Your task to perform on an android device: turn on location history Image 0: 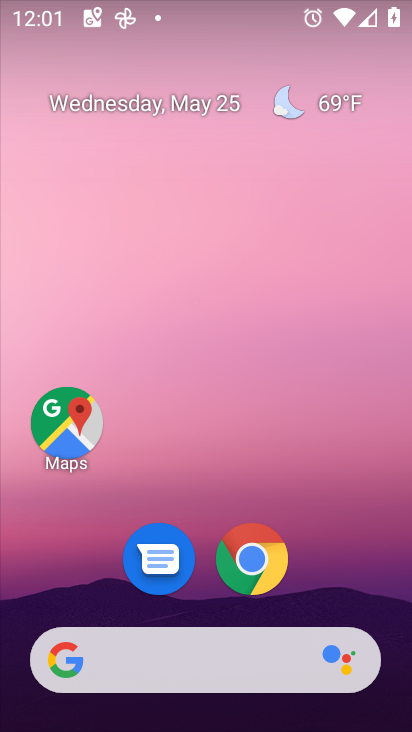
Step 0: drag from (393, 684) to (225, 88)
Your task to perform on an android device: turn on location history Image 1: 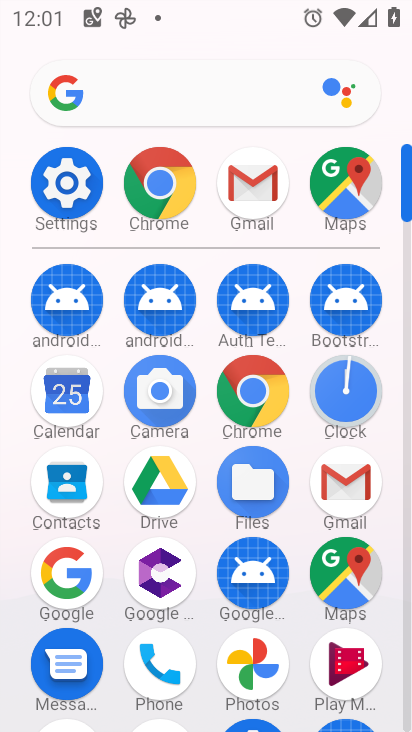
Step 1: click (84, 215)
Your task to perform on an android device: turn on location history Image 2: 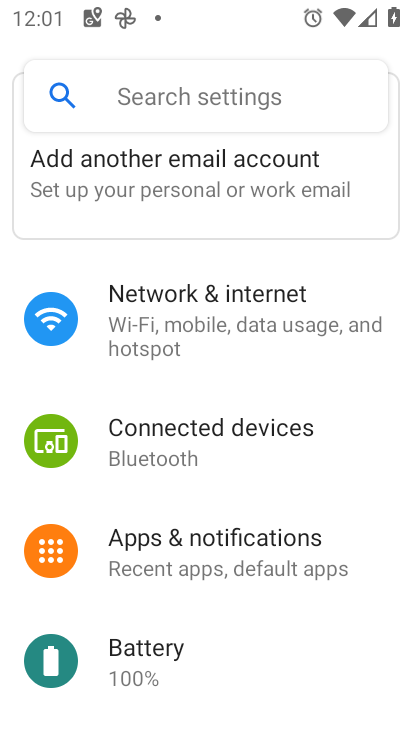
Step 2: drag from (216, 692) to (251, 186)
Your task to perform on an android device: turn on location history Image 3: 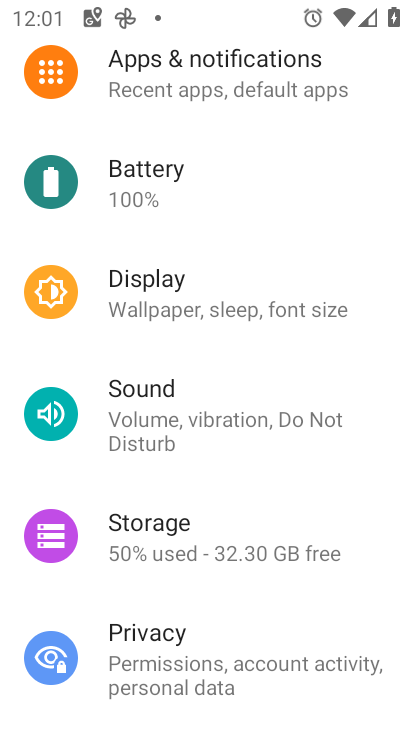
Step 3: drag from (181, 670) to (257, 187)
Your task to perform on an android device: turn on location history Image 4: 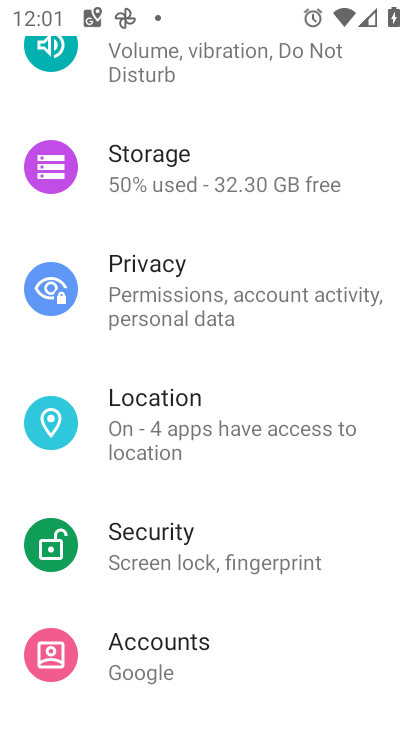
Step 4: click (196, 397)
Your task to perform on an android device: turn on location history Image 5: 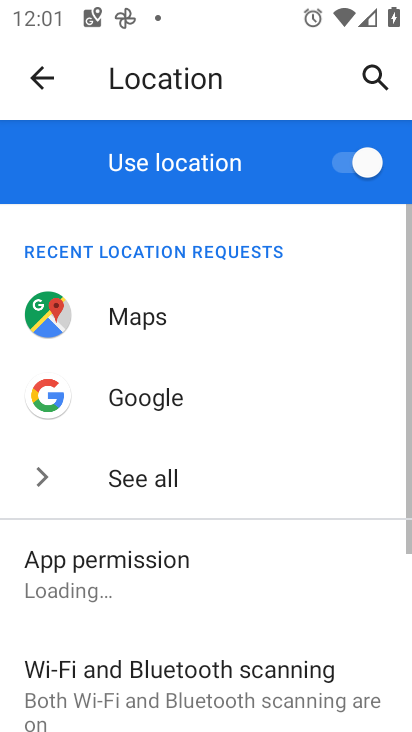
Step 5: drag from (203, 681) to (260, 197)
Your task to perform on an android device: turn on location history Image 6: 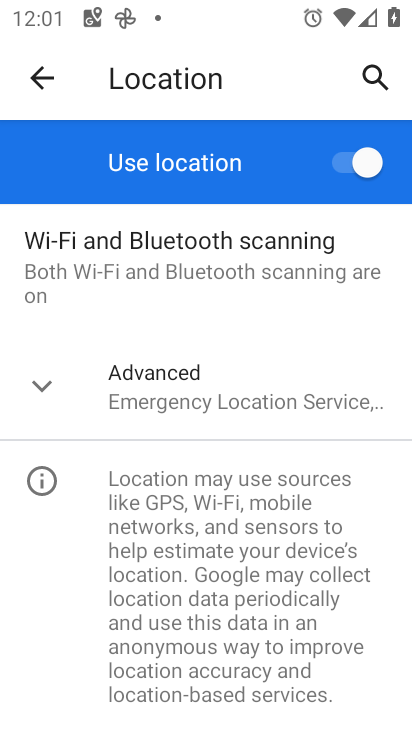
Step 6: click (139, 399)
Your task to perform on an android device: turn on location history Image 7: 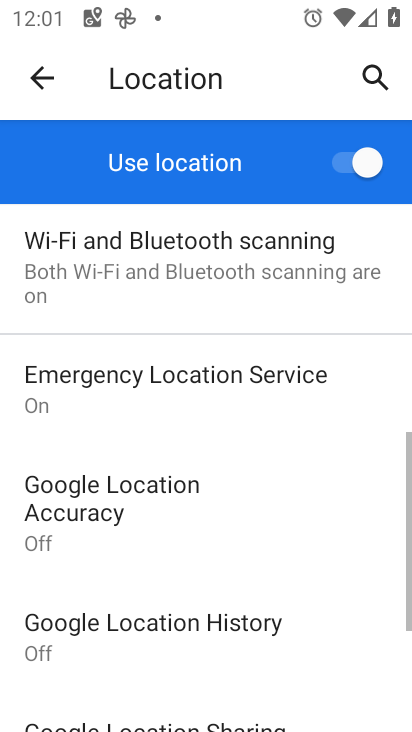
Step 7: click (225, 630)
Your task to perform on an android device: turn on location history Image 8: 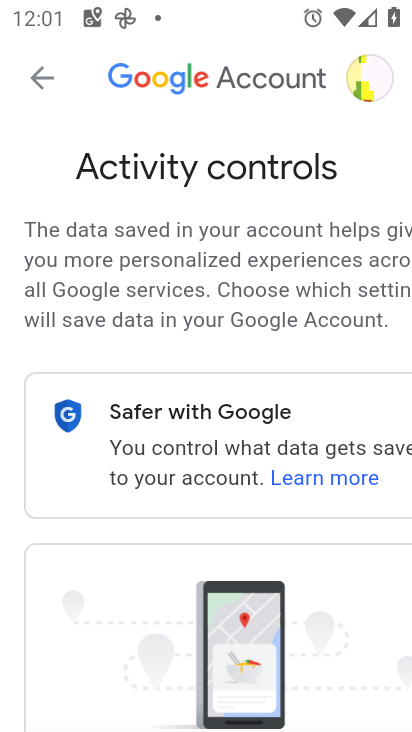
Step 8: drag from (326, 571) to (261, 129)
Your task to perform on an android device: turn on location history Image 9: 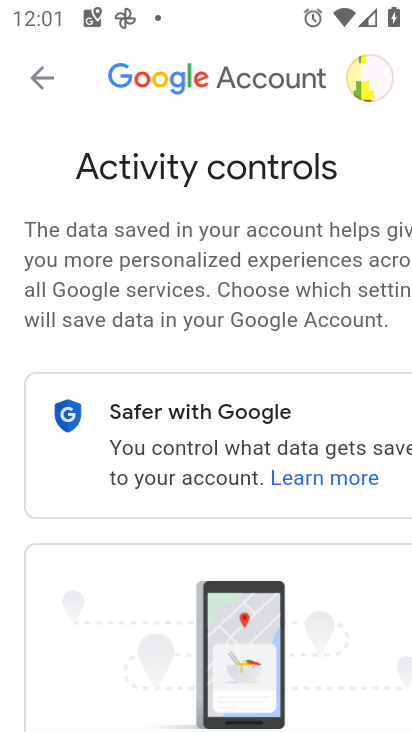
Step 9: drag from (346, 689) to (302, 174)
Your task to perform on an android device: turn on location history Image 10: 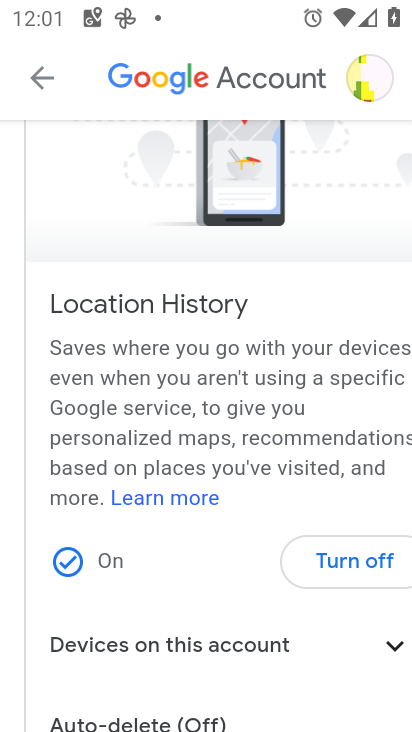
Step 10: click (354, 566)
Your task to perform on an android device: turn on location history Image 11: 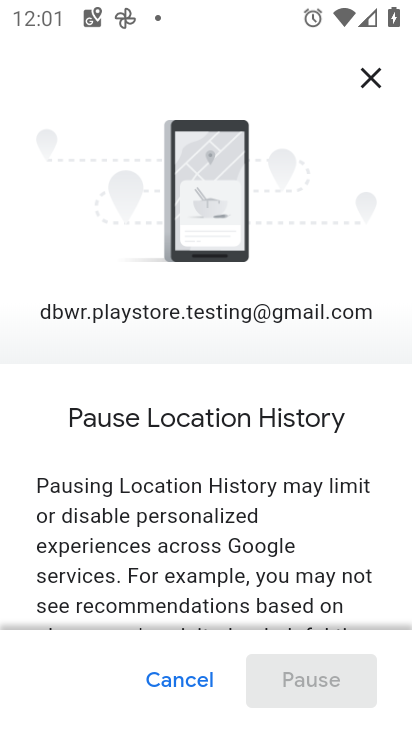
Step 11: task complete